Your task to perform on an android device: Go to Amazon Image 0: 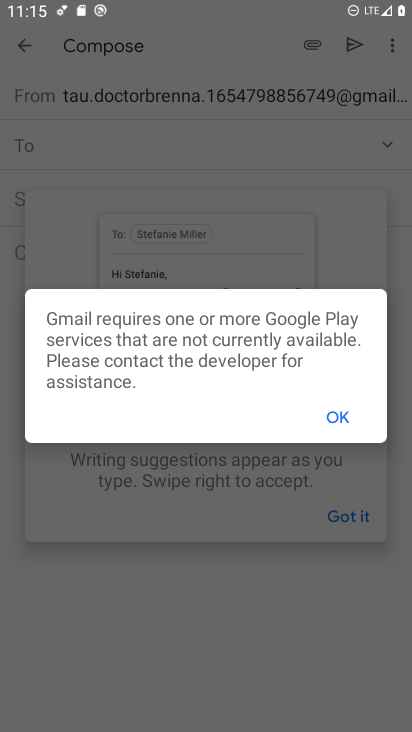
Step 0: press home button
Your task to perform on an android device: Go to Amazon Image 1: 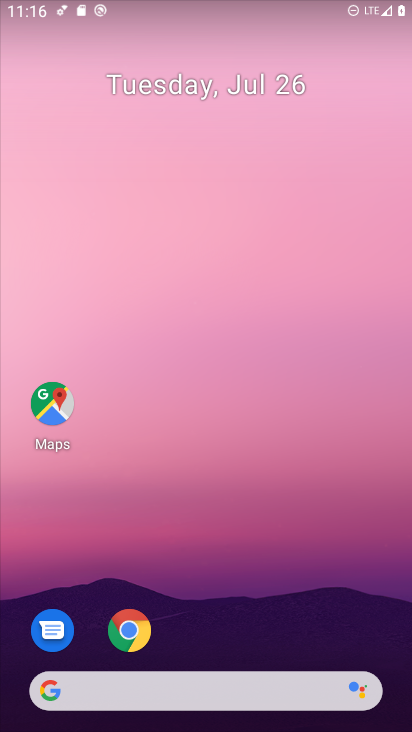
Step 1: click (128, 637)
Your task to perform on an android device: Go to Amazon Image 2: 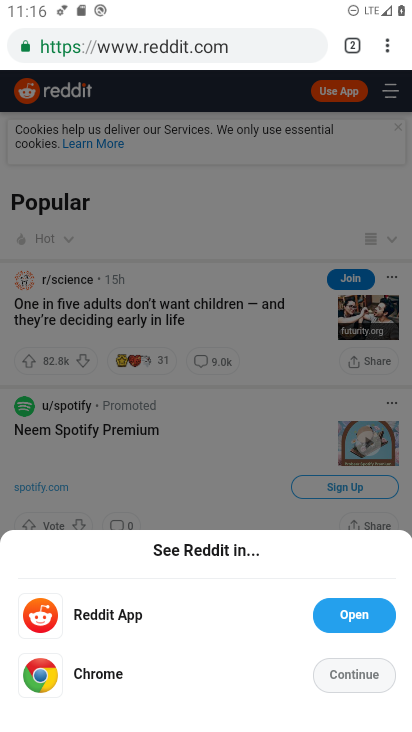
Step 2: click (241, 43)
Your task to perform on an android device: Go to Amazon Image 3: 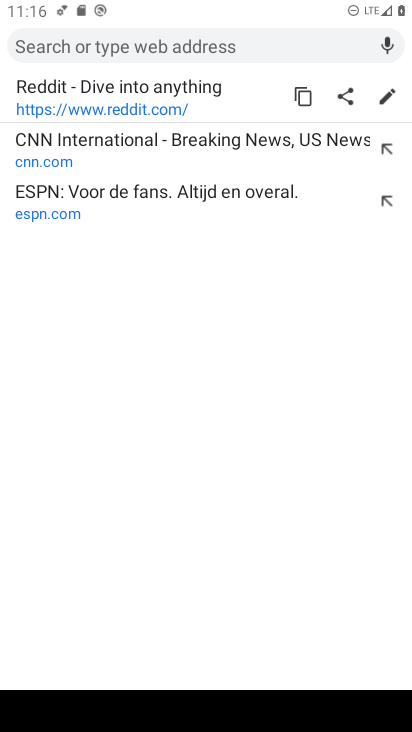
Step 3: type "Amazon"
Your task to perform on an android device: Go to Amazon Image 4: 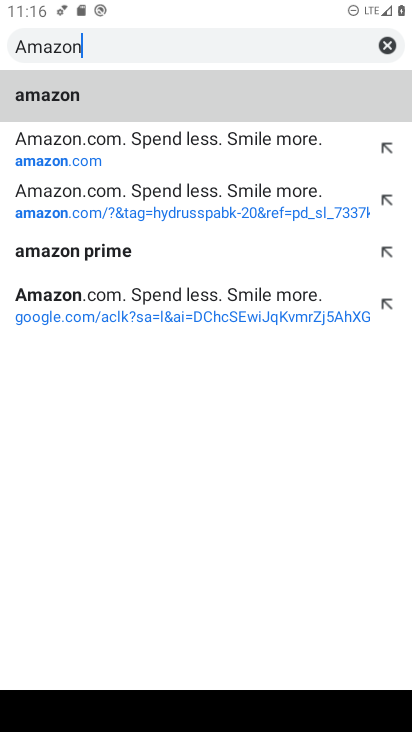
Step 4: click (48, 94)
Your task to perform on an android device: Go to Amazon Image 5: 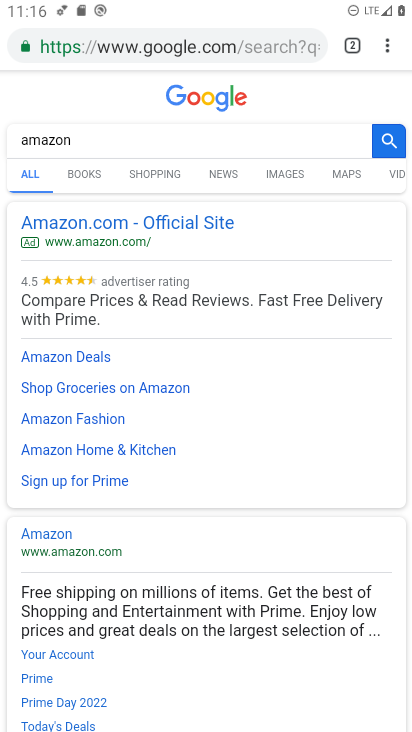
Step 5: click (93, 219)
Your task to perform on an android device: Go to Amazon Image 6: 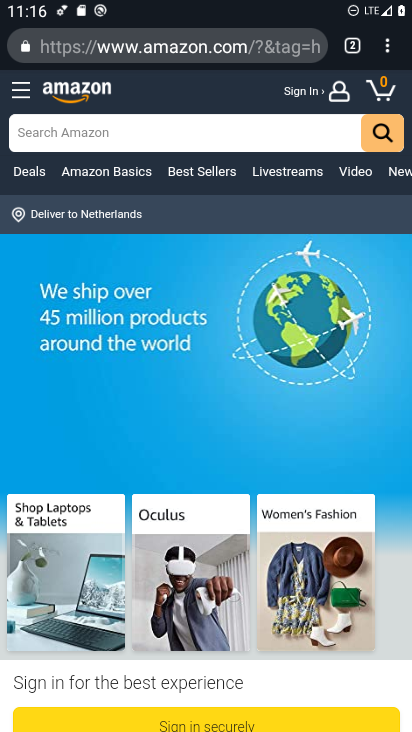
Step 6: task complete